Your task to perform on an android device: Open Wikipedia Image 0: 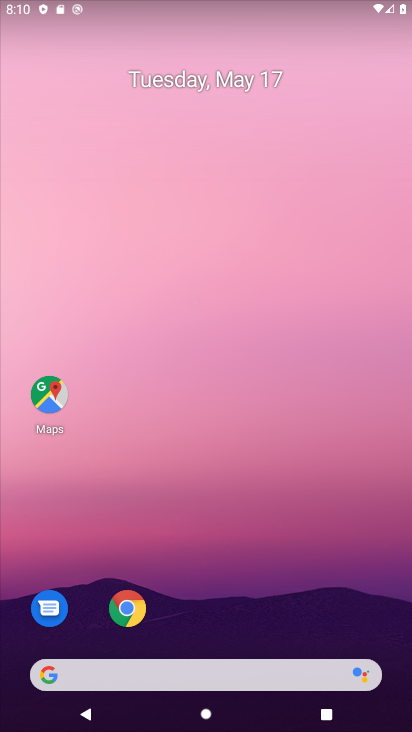
Step 0: drag from (364, 547) to (360, 162)
Your task to perform on an android device: Open Wikipedia Image 1: 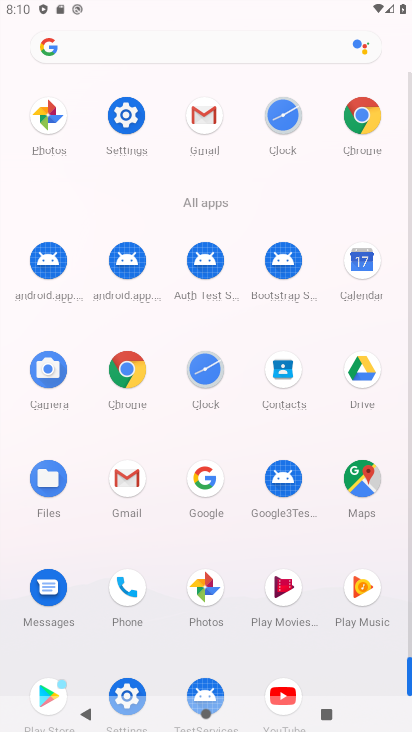
Step 1: click (136, 375)
Your task to perform on an android device: Open Wikipedia Image 2: 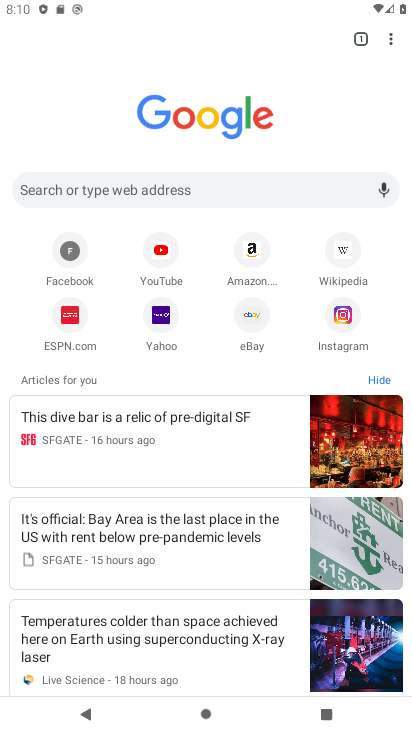
Step 2: click (353, 260)
Your task to perform on an android device: Open Wikipedia Image 3: 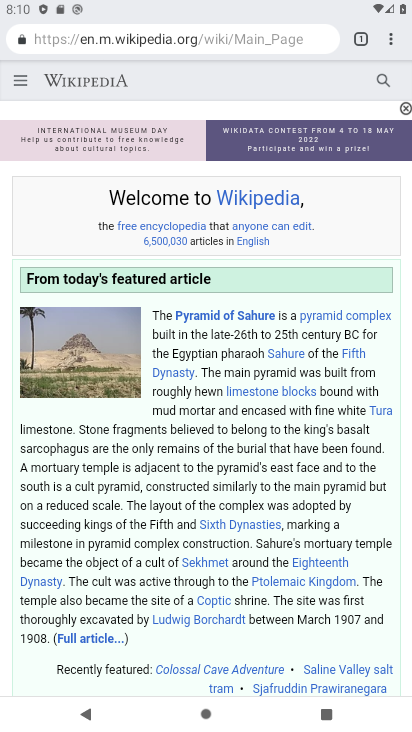
Step 3: task complete